Your task to perform on an android device: Open Google Chrome Image 0: 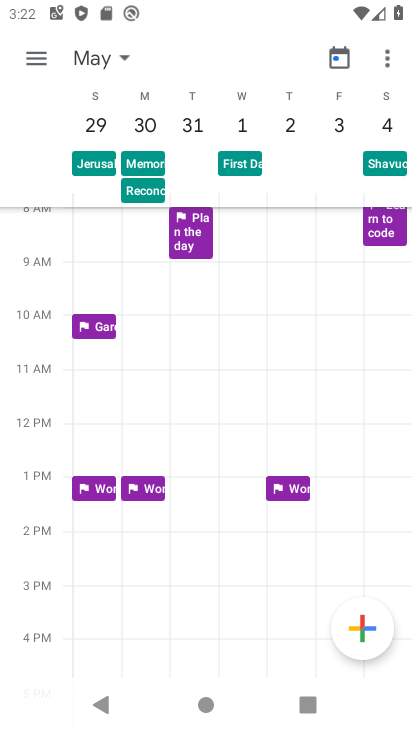
Step 0: press home button
Your task to perform on an android device: Open Google Chrome Image 1: 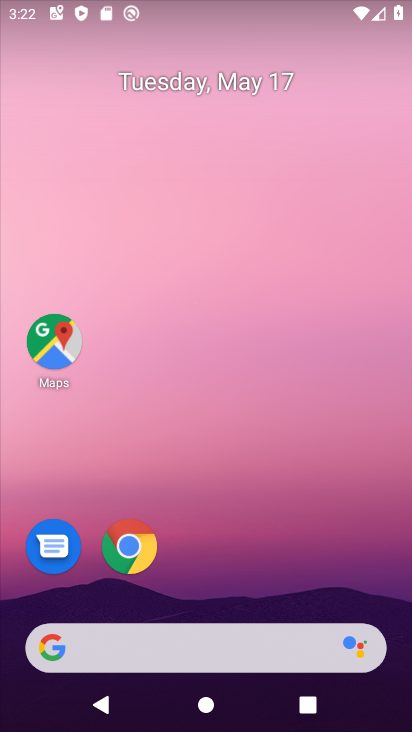
Step 1: click (125, 546)
Your task to perform on an android device: Open Google Chrome Image 2: 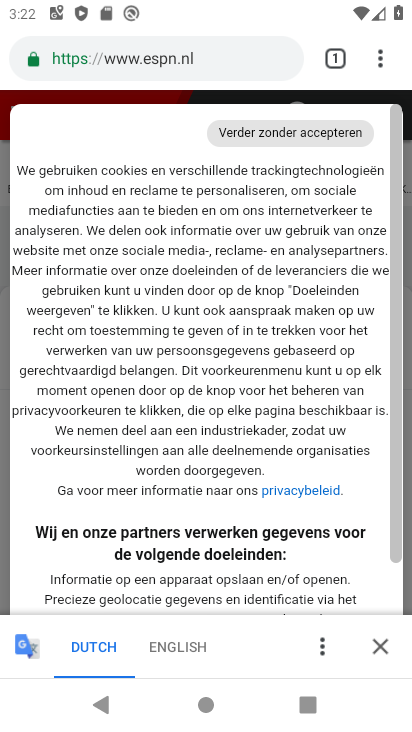
Step 2: task complete